Your task to perform on an android device: show emergency info Image 0: 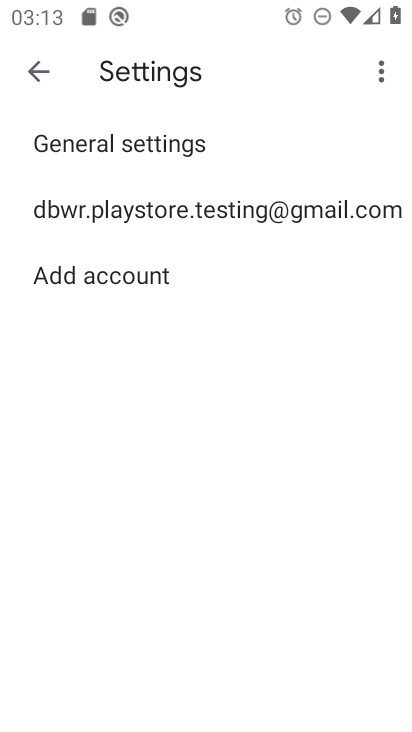
Step 0: press home button
Your task to perform on an android device: show emergency info Image 1: 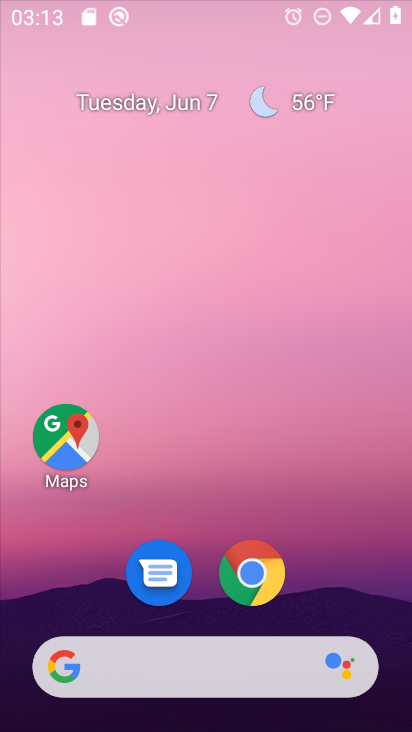
Step 1: drag from (345, 606) to (349, 35)
Your task to perform on an android device: show emergency info Image 2: 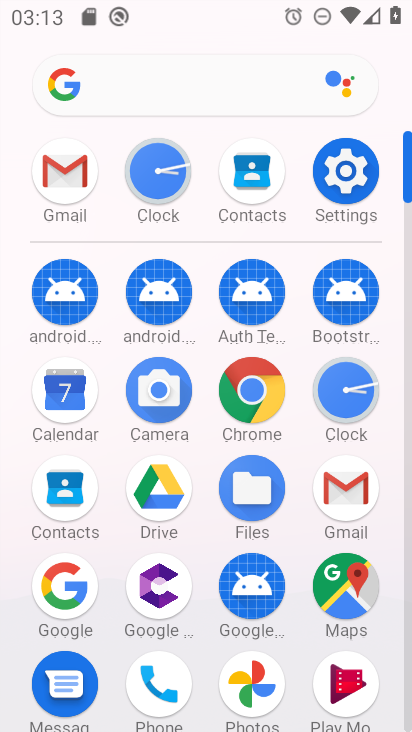
Step 2: click (348, 179)
Your task to perform on an android device: show emergency info Image 3: 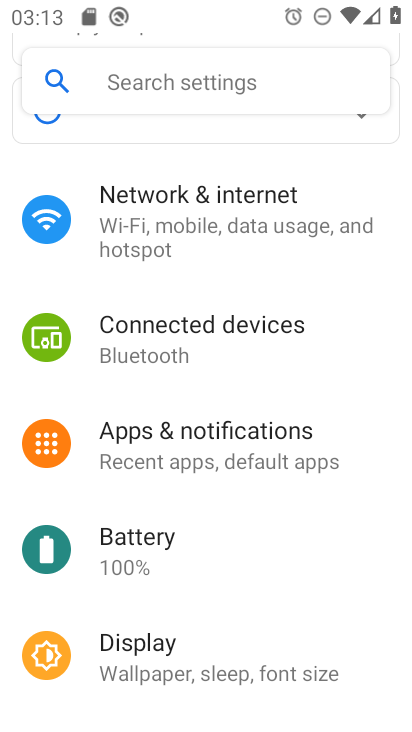
Step 3: drag from (283, 578) to (212, 18)
Your task to perform on an android device: show emergency info Image 4: 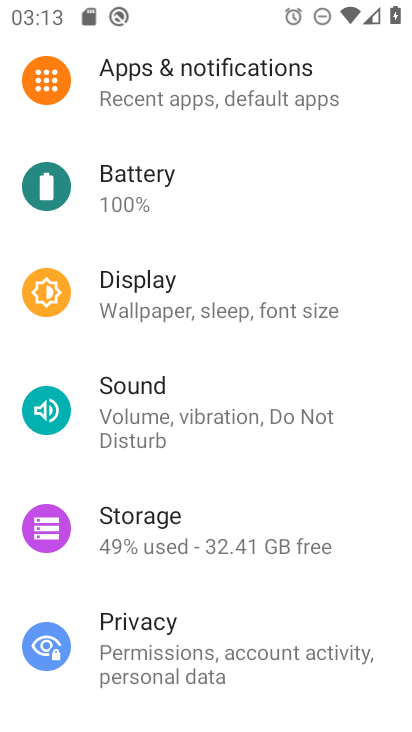
Step 4: drag from (231, 407) to (231, 24)
Your task to perform on an android device: show emergency info Image 5: 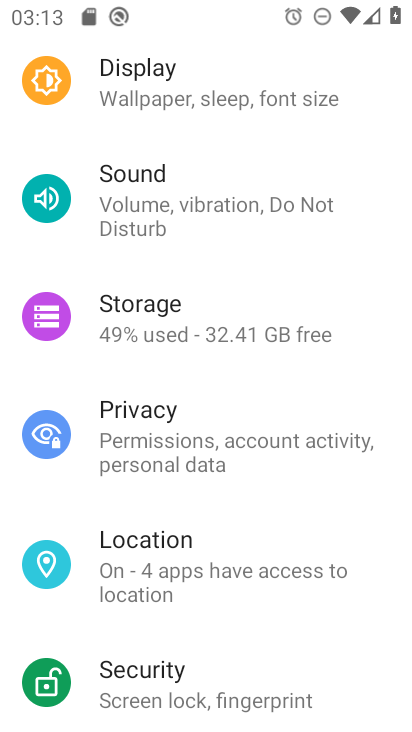
Step 5: drag from (166, 434) to (146, 37)
Your task to perform on an android device: show emergency info Image 6: 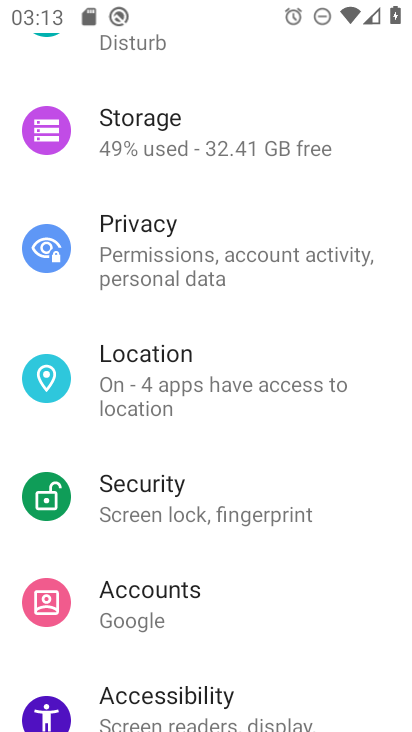
Step 6: drag from (175, 631) to (194, 141)
Your task to perform on an android device: show emergency info Image 7: 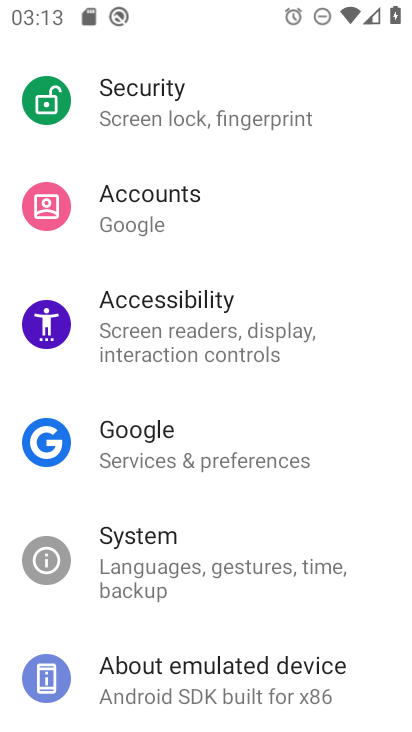
Step 7: click (202, 678)
Your task to perform on an android device: show emergency info Image 8: 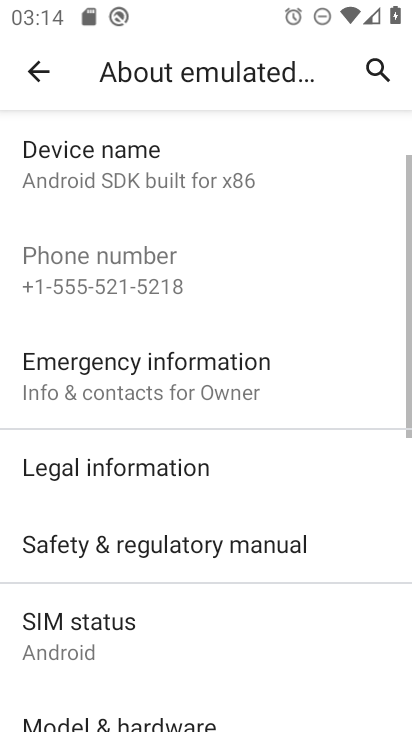
Step 8: click (170, 393)
Your task to perform on an android device: show emergency info Image 9: 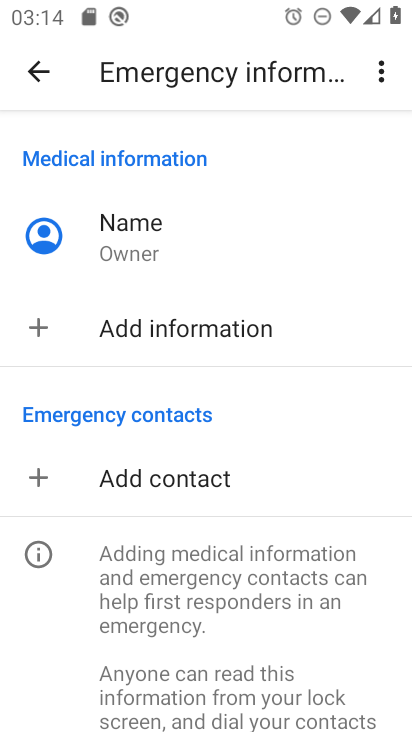
Step 9: task complete